Your task to perform on an android device: turn vacation reply on in the gmail app Image 0: 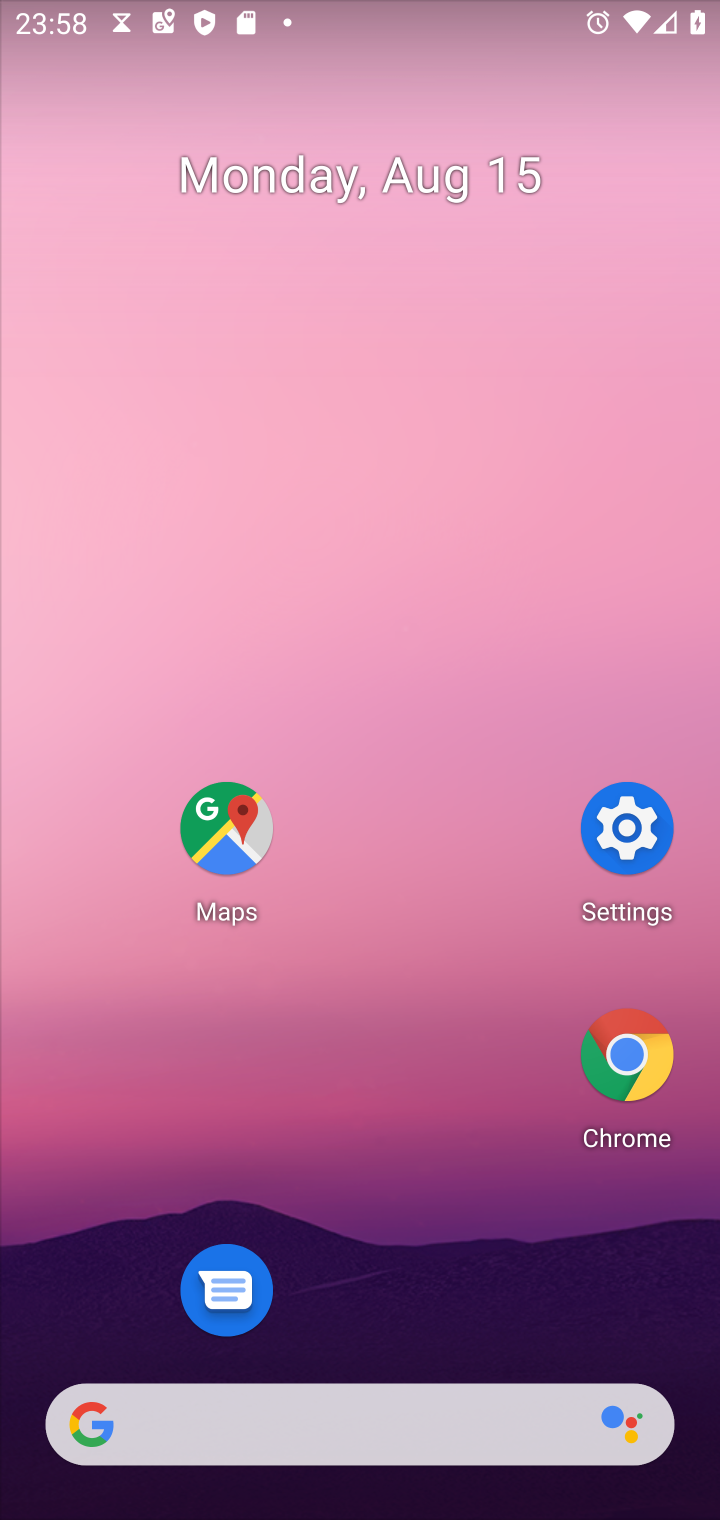
Step 0: press home button
Your task to perform on an android device: turn vacation reply on in the gmail app Image 1: 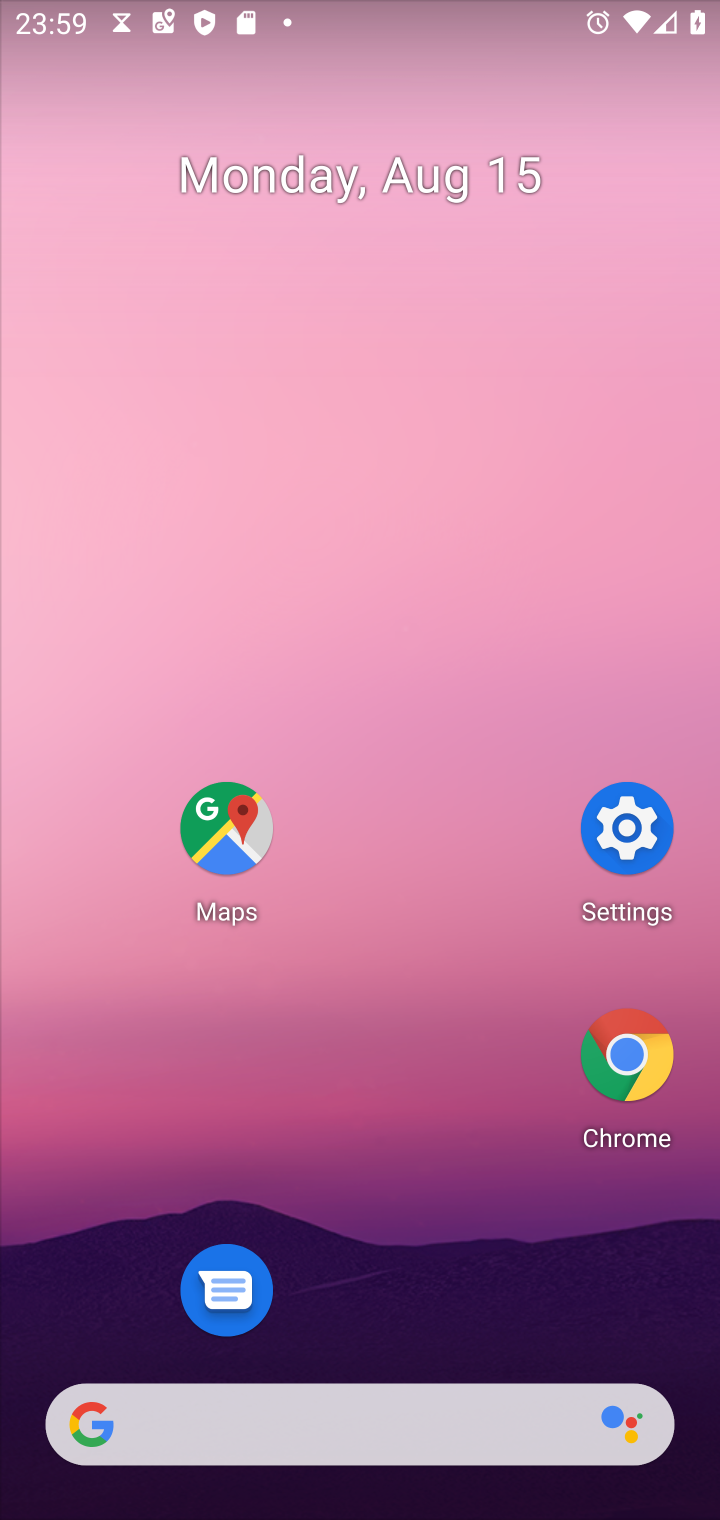
Step 1: drag from (291, 1282) to (488, 95)
Your task to perform on an android device: turn vacation reply on in the gmail app Image 2: 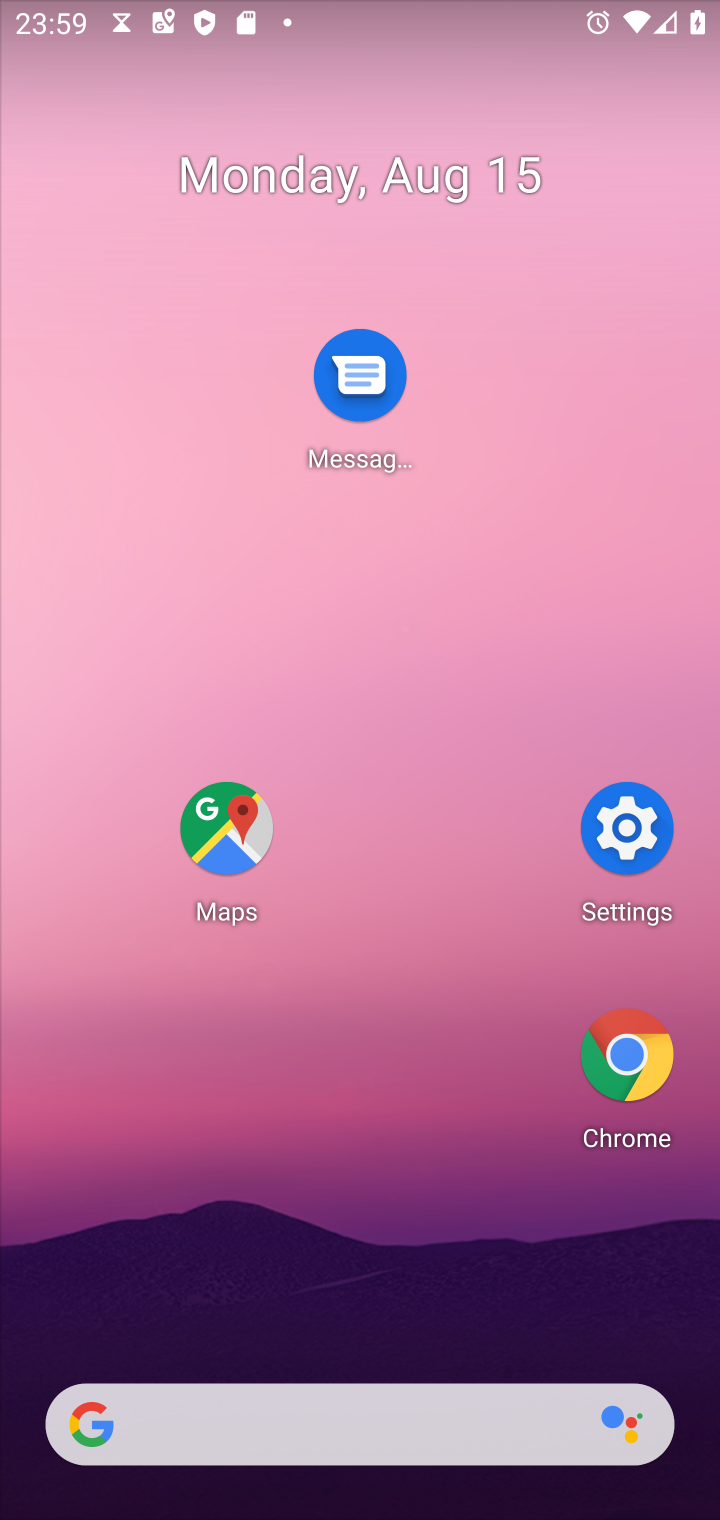
Step 2: drag from (360, 399) to (223, 1006)
Your task to perform on an android device: turn vacation reply on in the gmail app Image 3: 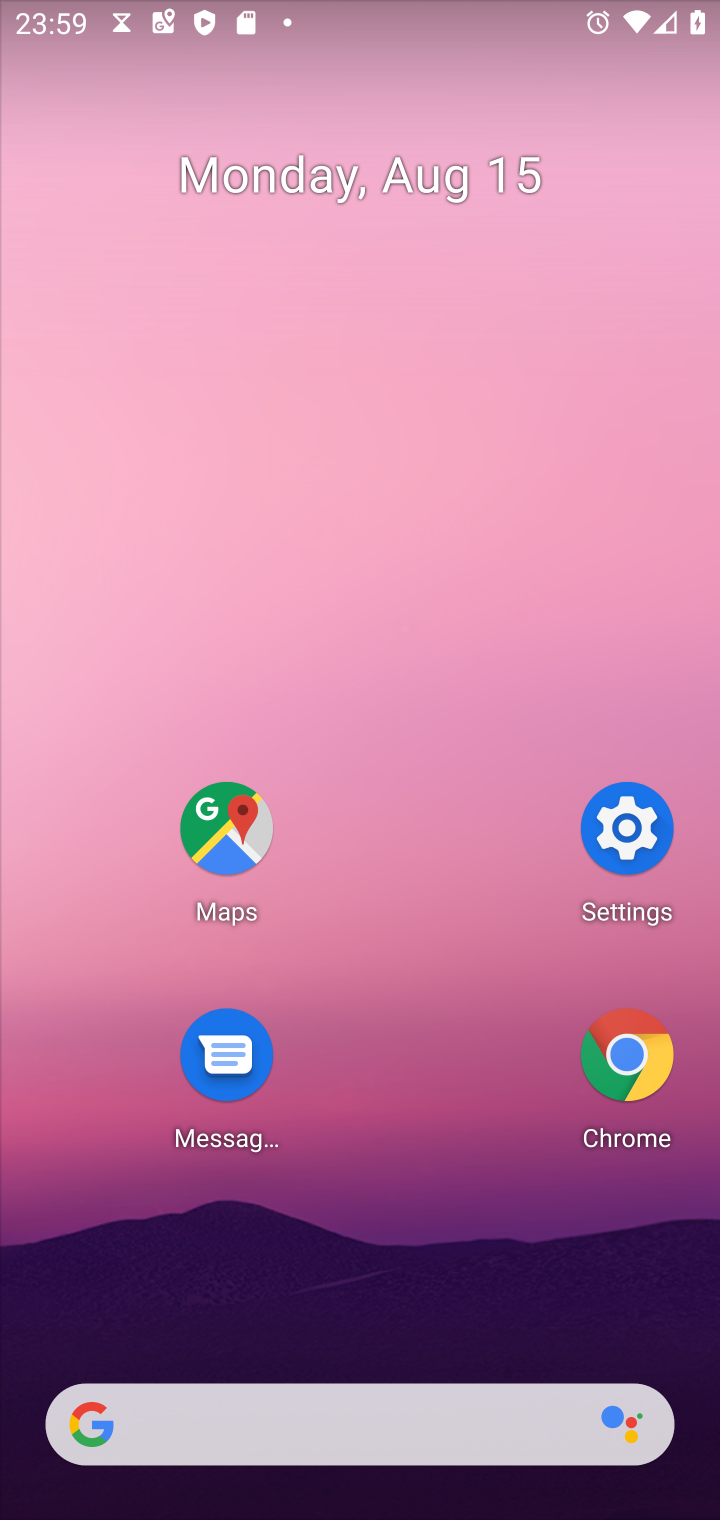
Step 3: drag from (435, 1274) to (627, 207)
Your task to perform on an android device: turn vacation reply on in the gmail app Image 4: 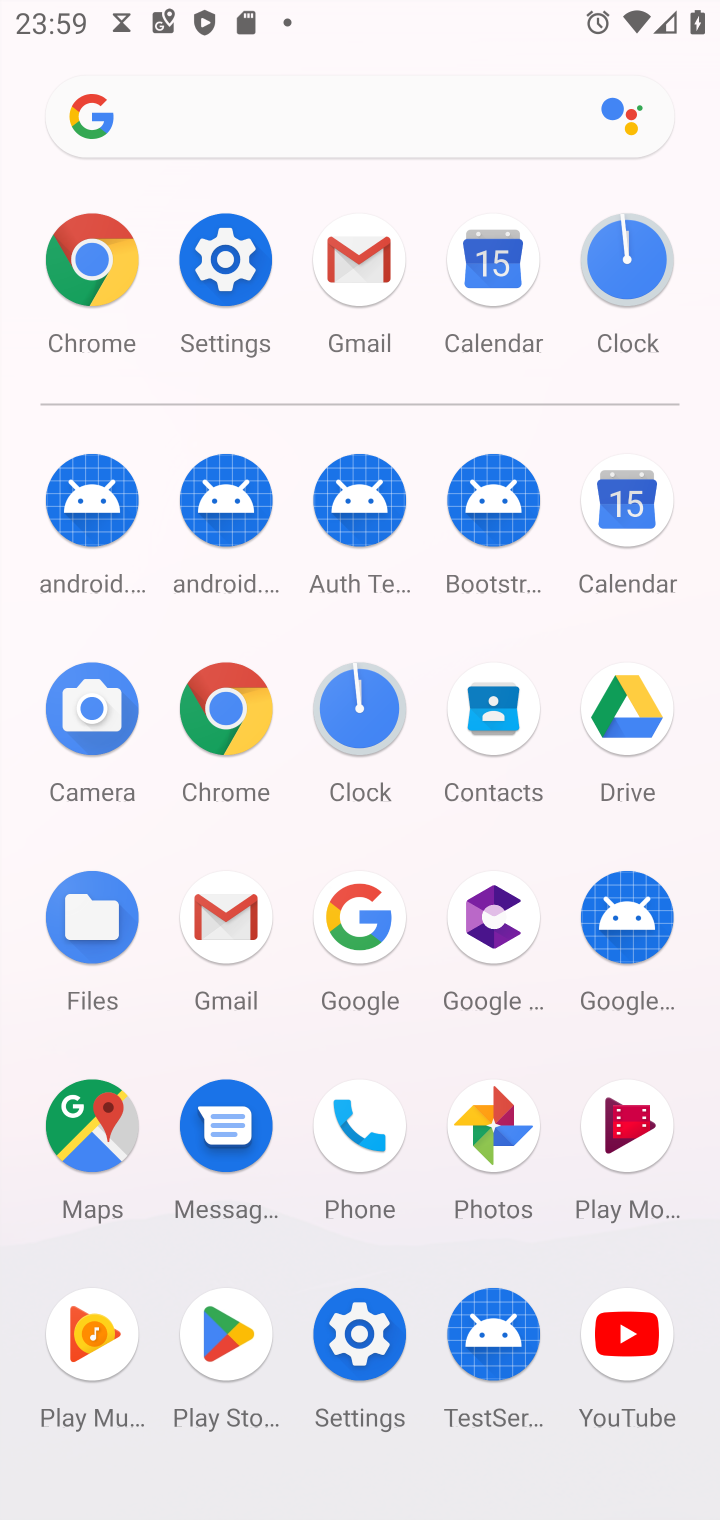
Step 4: click (345, 276)
Your task to perform on an android device: turn vacation reply on in the gmail app Image 5: 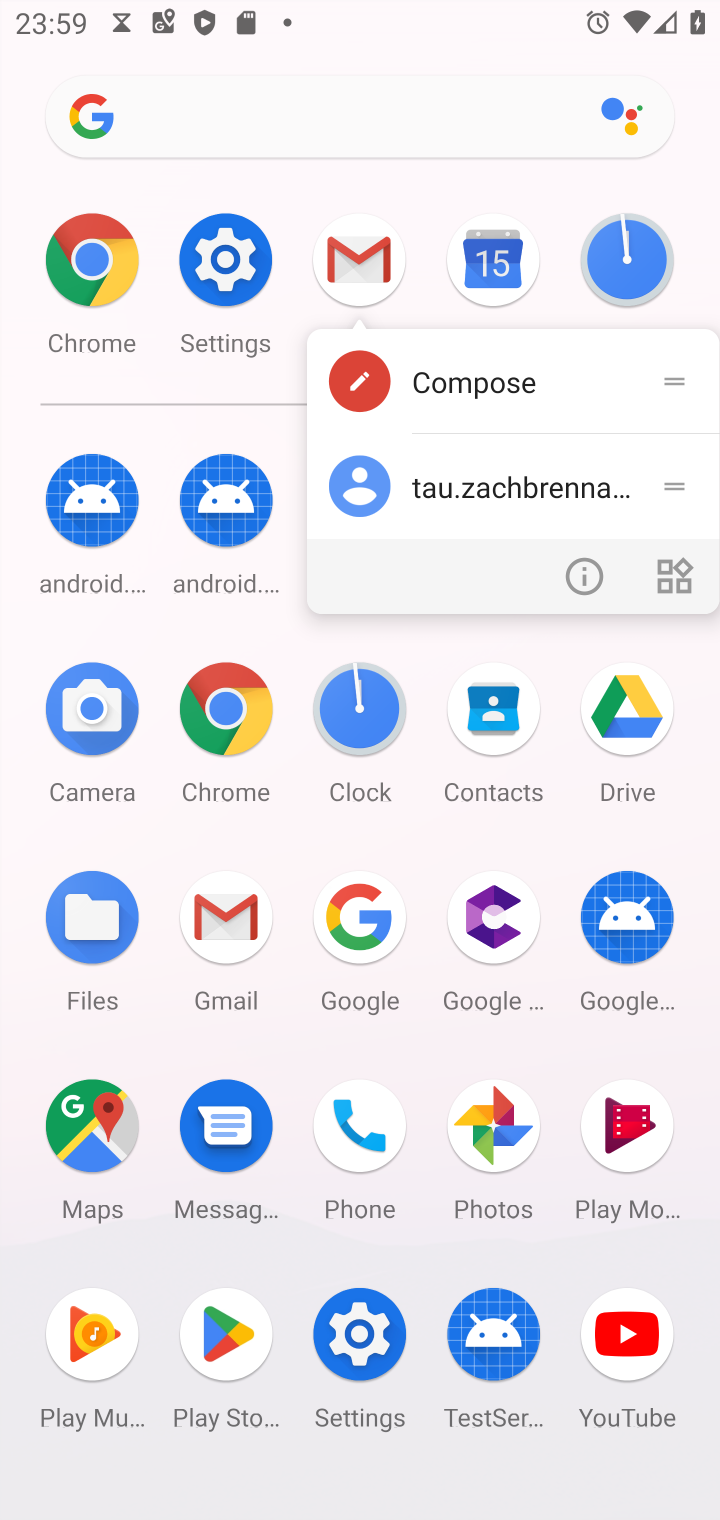
Step 5: click (345, 278)
Your task to perform on an android device: turn vacation reply on in the gmail app Image 6: 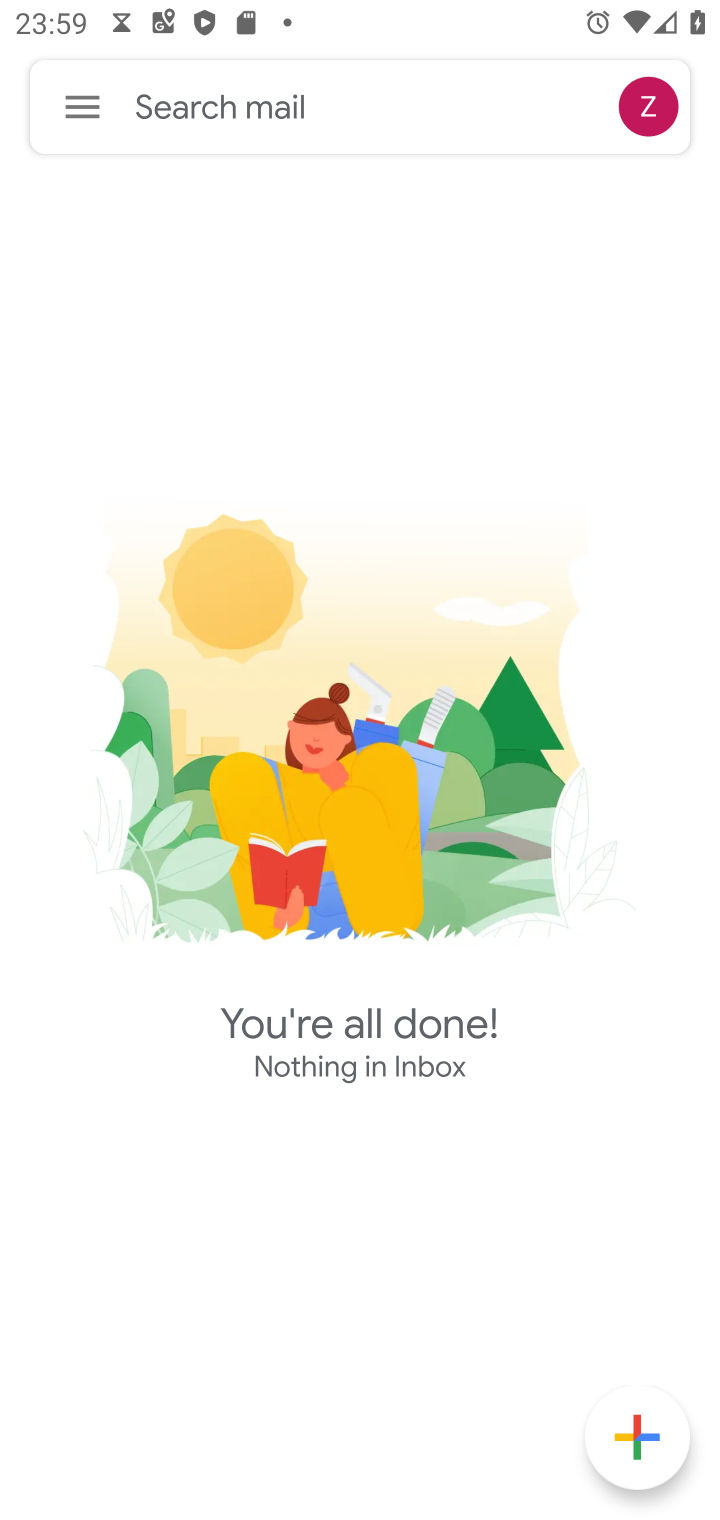
Step 6: click (78, 105)
Your task to perform on an android device: turn vacation reply on in the gmail app Image 7: 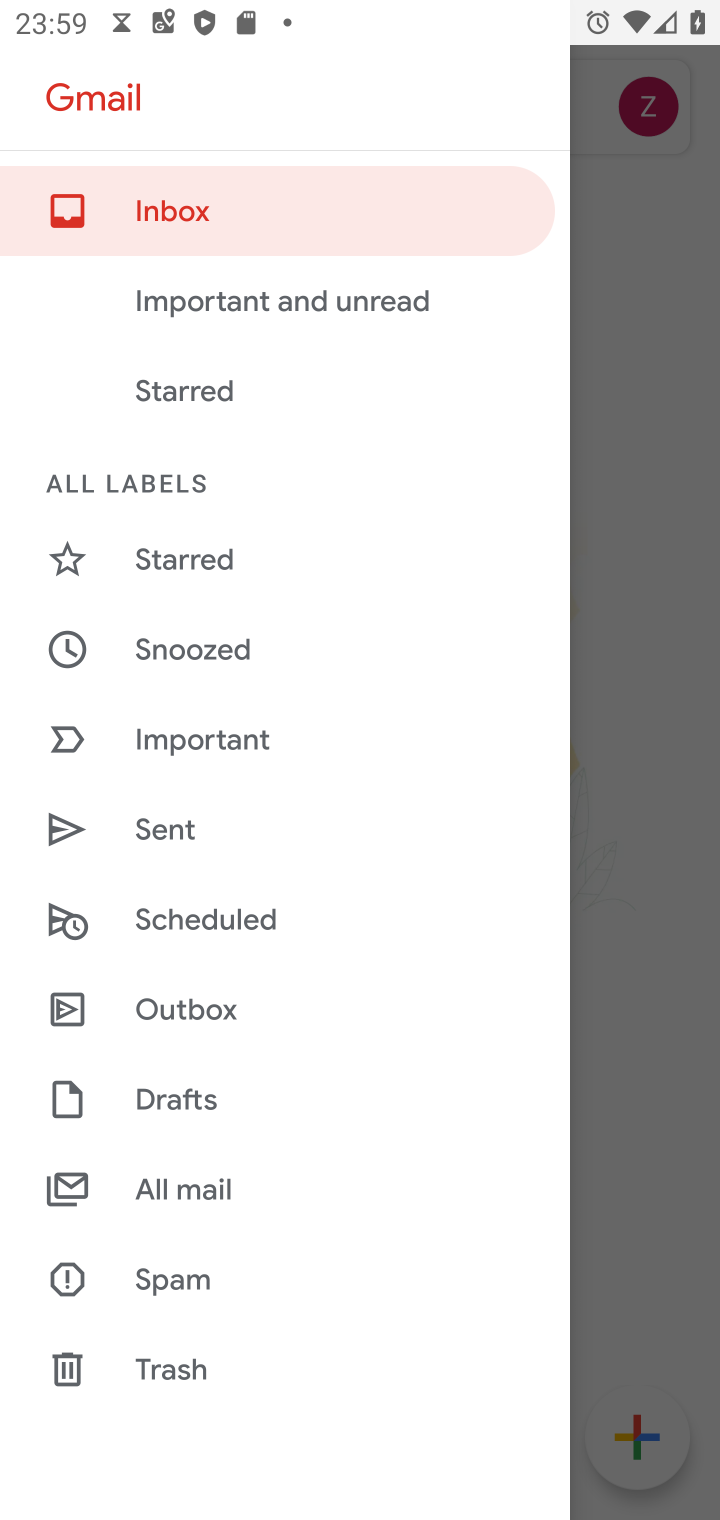
Step 7: drag from (309, 1274) to (467, 200)
Your task to perform on an android device: turn vacation reply on in the gmail app Image 8: 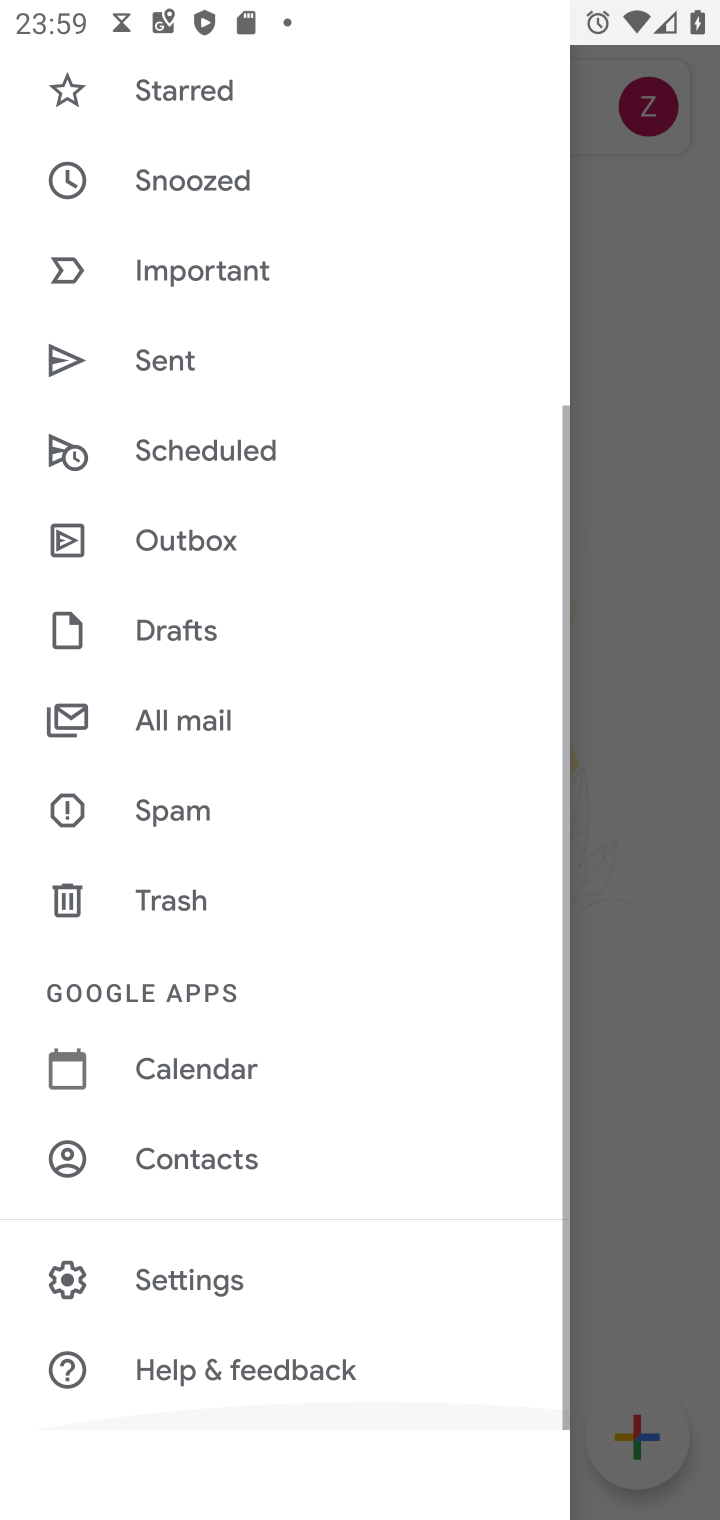
Step 8: click (203, 1278)
Your task to perform on an android device: turn vacation reply on in the gmail app Image 9: 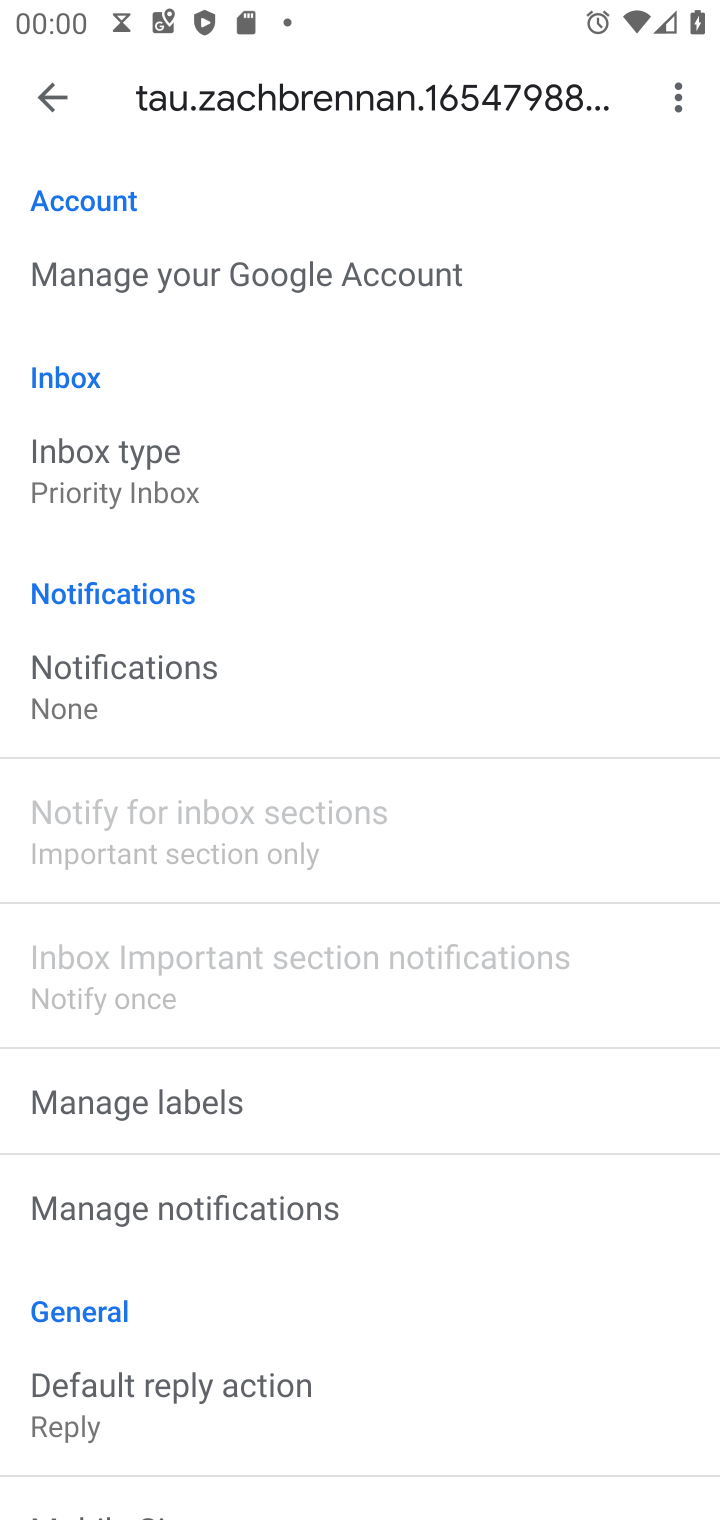
Step 9: drag from (384, 1295) to (548, 211)
Your task to perform on an android device: turn vacation reply on in the gmail app Image 10: 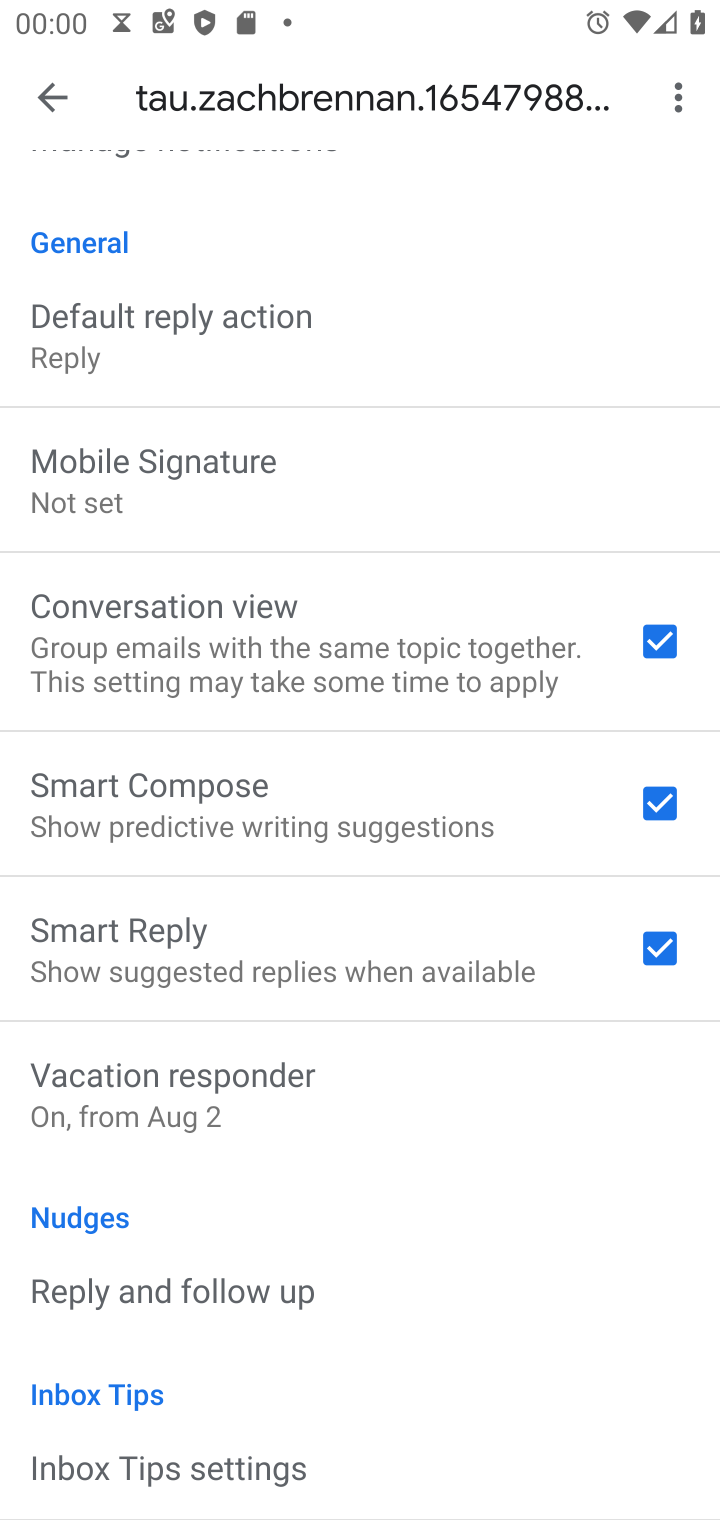
Step 10: click (215, 1099)
Your task to perform on an android device: turn vacation reply on in the gmail app Image 11: 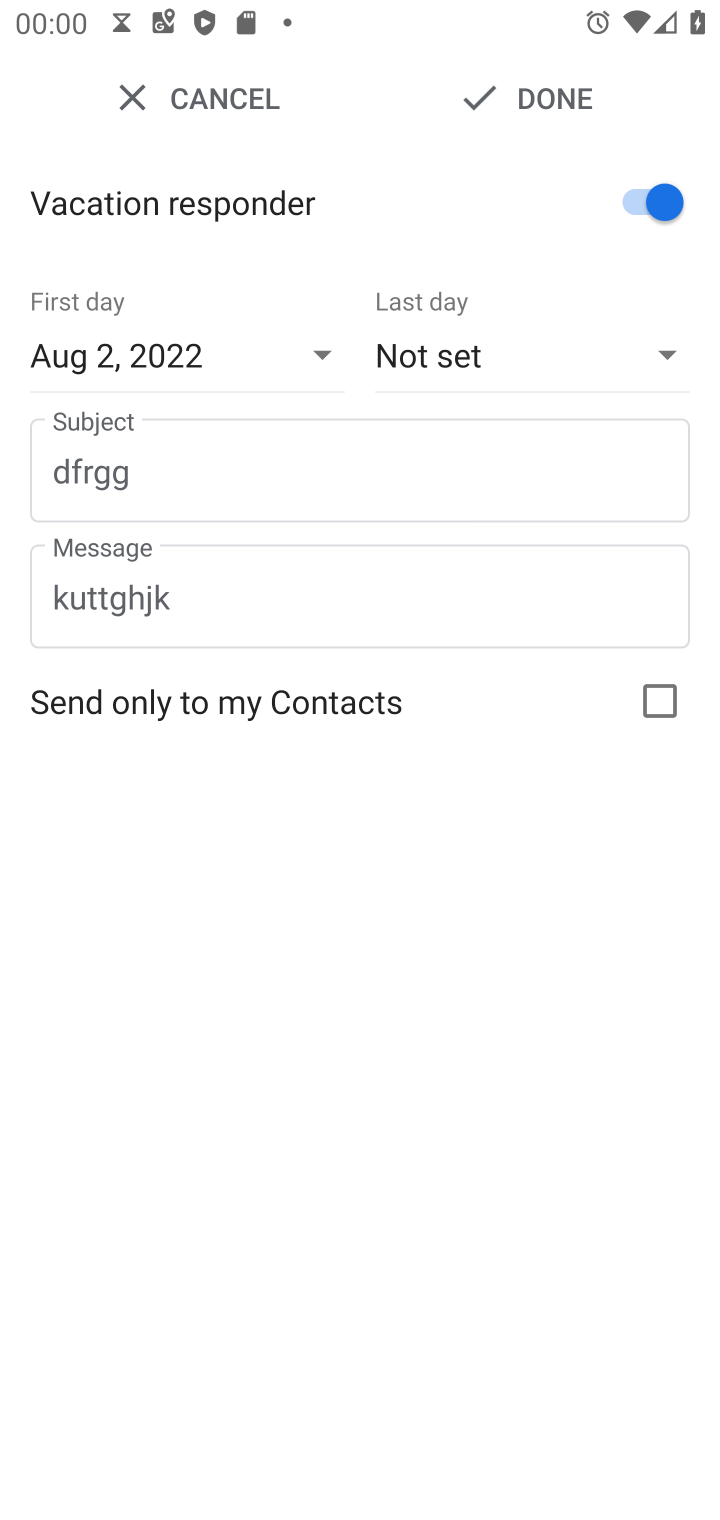
Step 11: task complete